Your task to perform on an android device: Open the stopwatch Image 0: 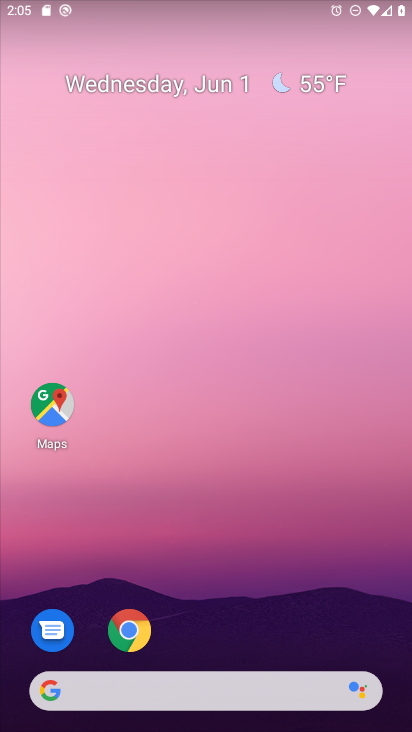
Step 0: drag from (295, 675) to (297, 11)
Your task to perform on an android device: Open the stopwatch Image 1: 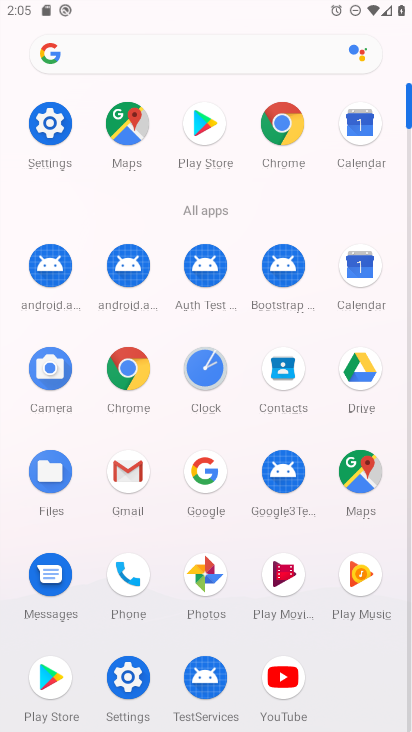
Step 1: click (208, 379)
Your task to perform on an android device: Open the stopwatch Image 2: 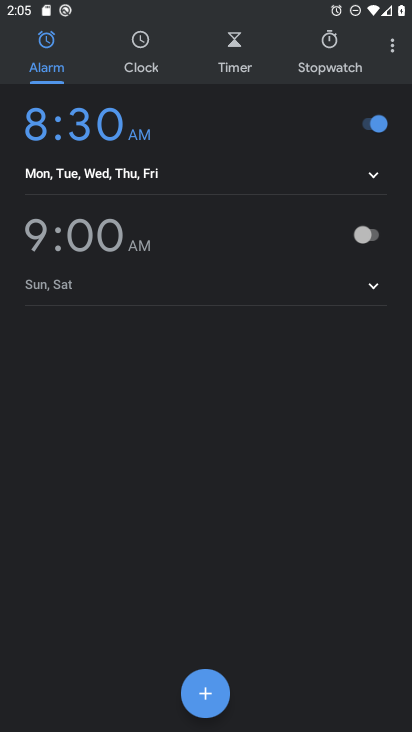
Step 2: click (340, 40)
Your task to perform on an android device: Open the stopwatch Image 3: 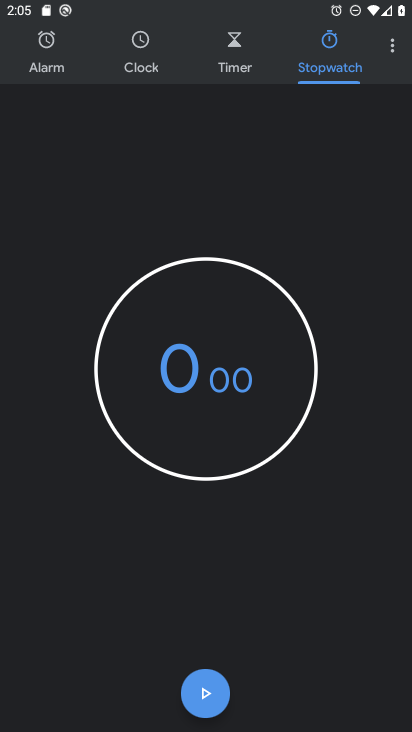
Step 3: task complete